Your task to perform on an android device: Open notification settings Image 0: 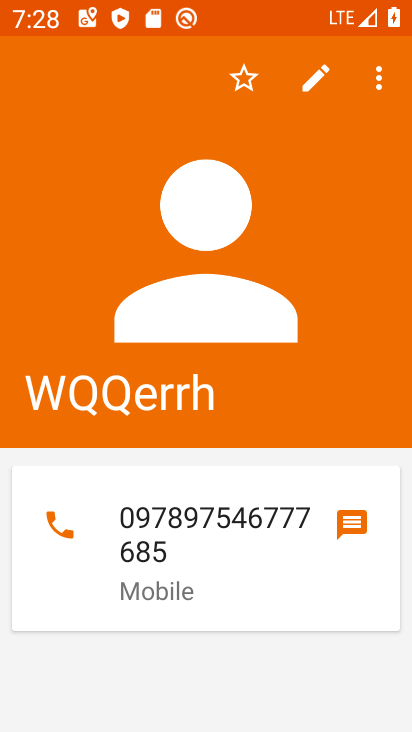
Step 0: press home button
Your task to perform on an android device: Open notification settings Image 1: 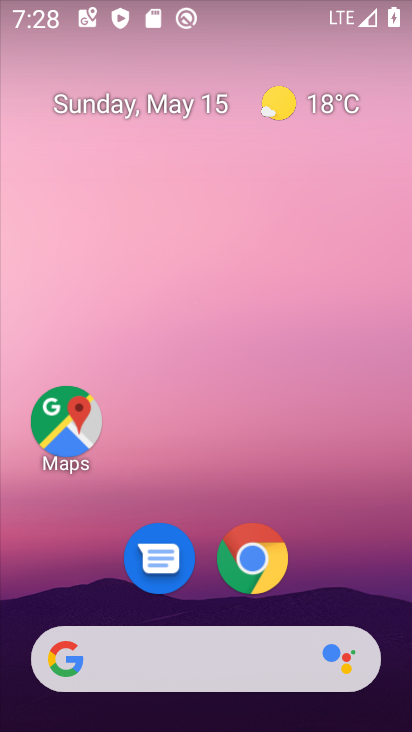
Step 1: drag from (222, 451) to (139, 37)
Your task to perform on an android device: Open notification settings Image 2: 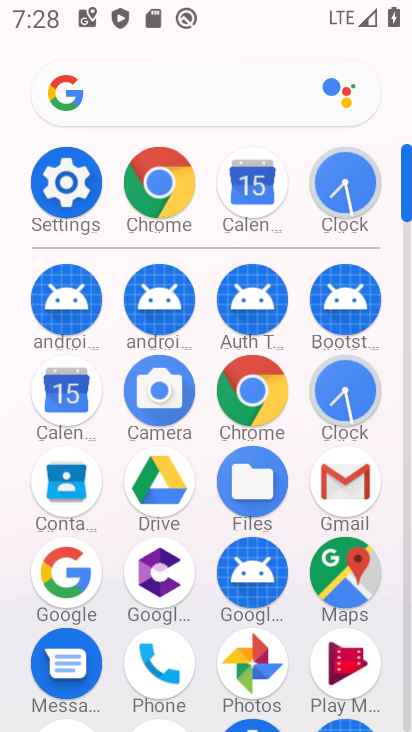
Step 2: click (70, 189)
Your task to perform on an android device: Open notification settings Image 3: 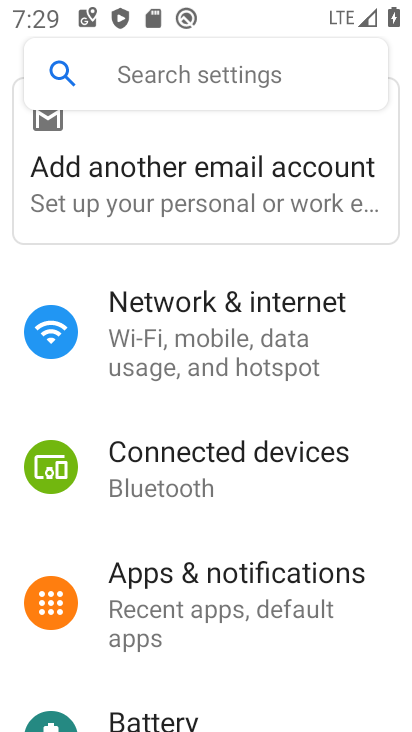
Step 3: click (238, 573)
Your task to perform on an android device: Open notification settings Image 4: 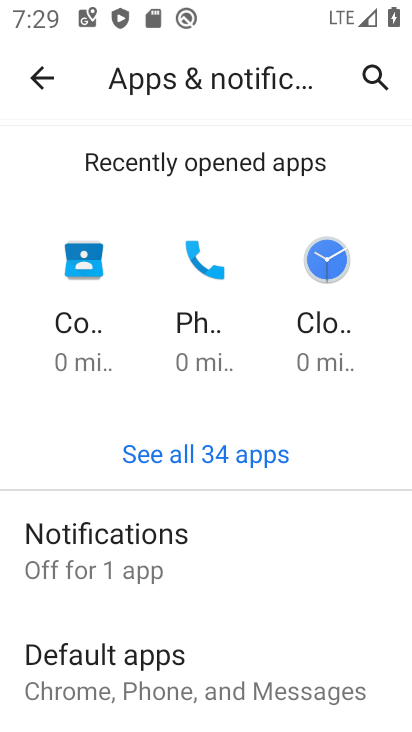
Step 4: task complete